Your task to perform on an android device: set the timer Image 0: 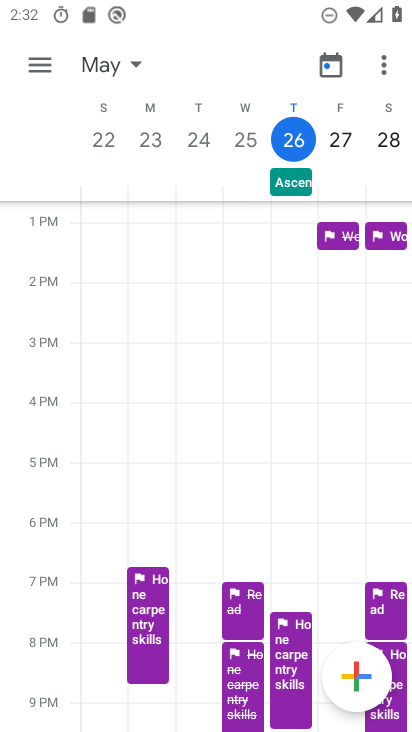
Step 0: press home button
Your task to perform on an android device: set the timer Image 1: 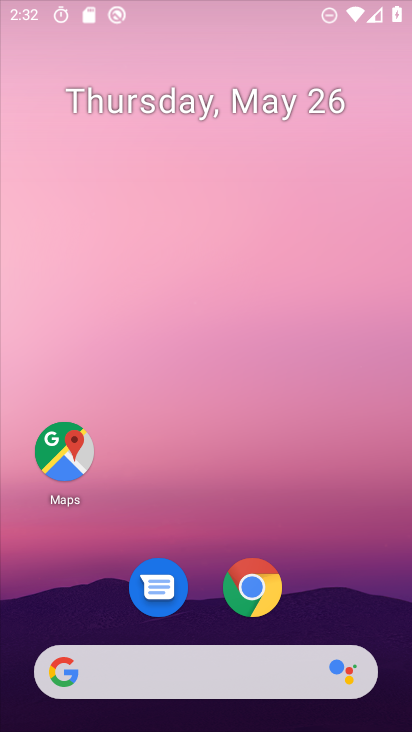
Step 1: drag from (328, 548) to (305, 146)
Your task to perform on an android device: set the timer Image 2: 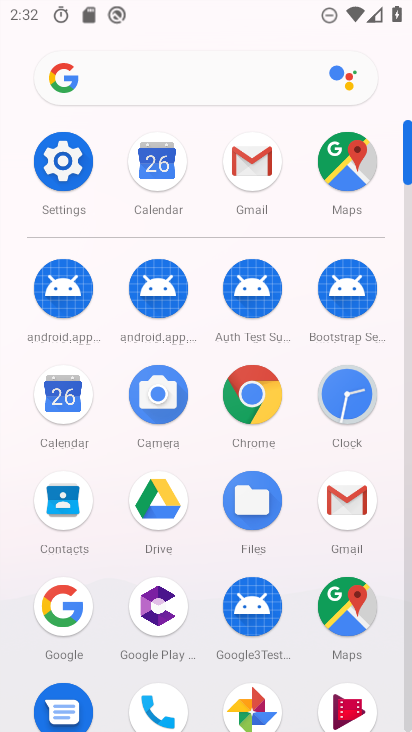
Step 2: click (350, 391)
Your task to perform on an android device: set the timer Image 3: 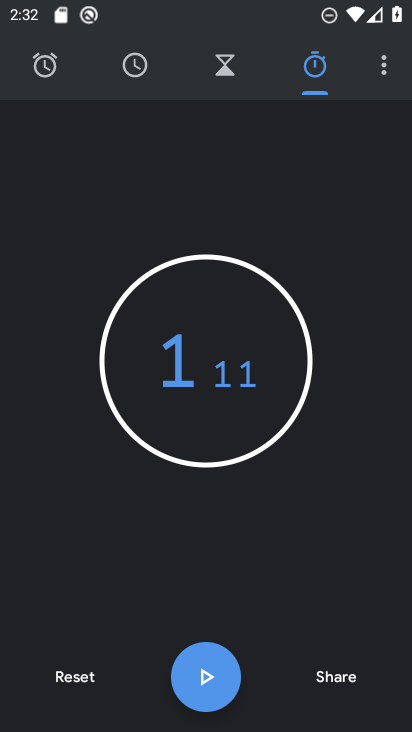
Step 3: click (231, 75)
Your task to perform on an android device: set the timer Image 4: 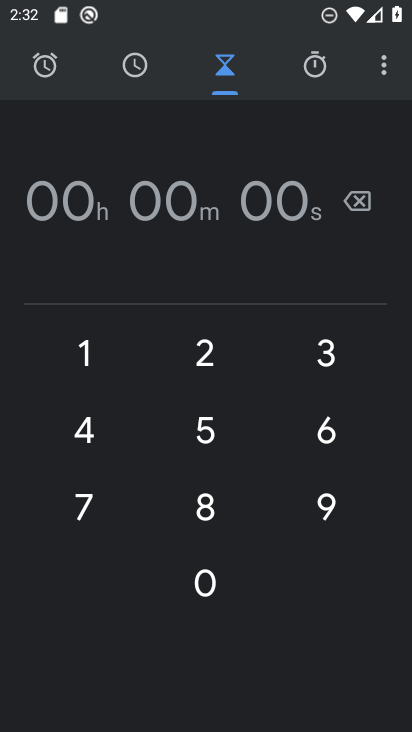
Step 4: click (212, 441)
Your task to perform on an android device: set the timer Image 5: 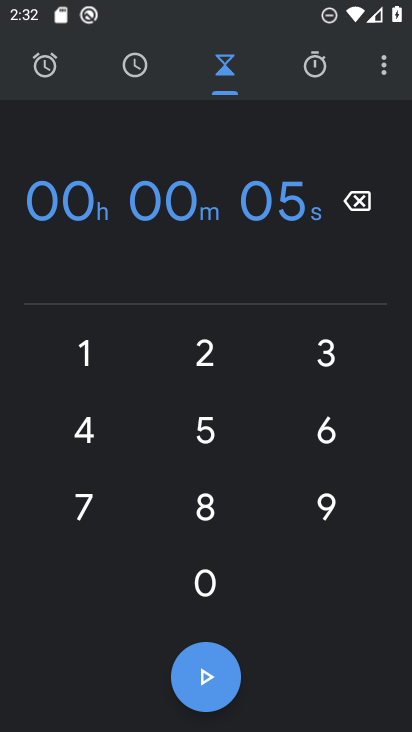
Step 5: task complete